Your task to perform on an android device: Open Google Chrome Image 0: 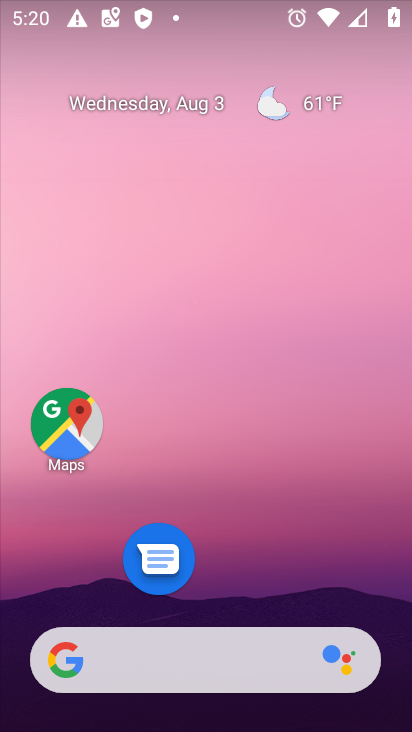
Step 0: drag from (214, 626) to (199, 224)
Your task to perform on an android device: Open Google Chrome Image 1: 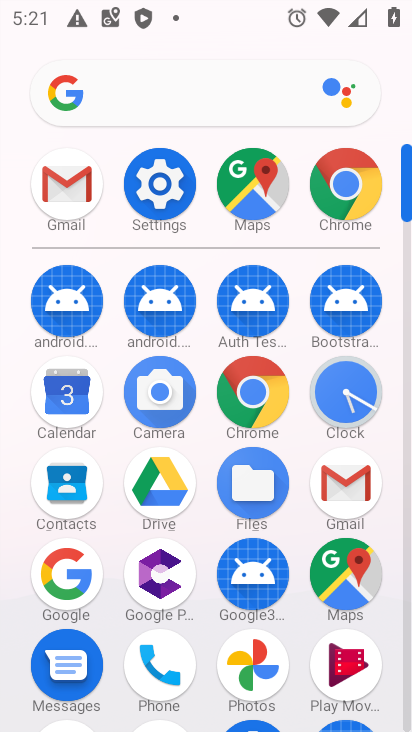
Step 1: click (339, 192)
Your task to perform on an android device: Open Google Chrome Image 2: 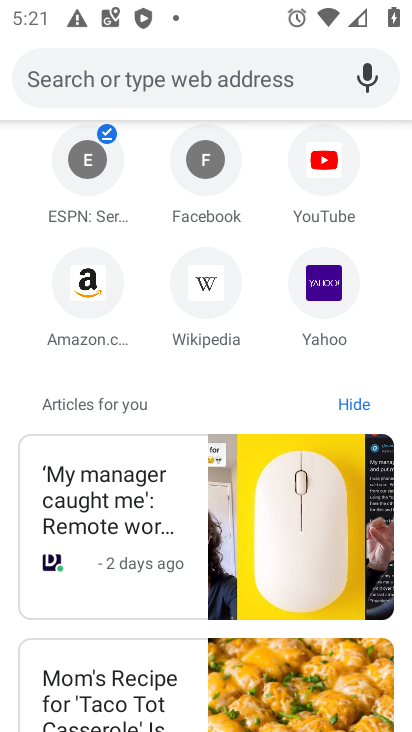
Step 2: drag from (202, 51) to (294, 383)
Your task to perform on an android device: Open Google Chrome Image 3: 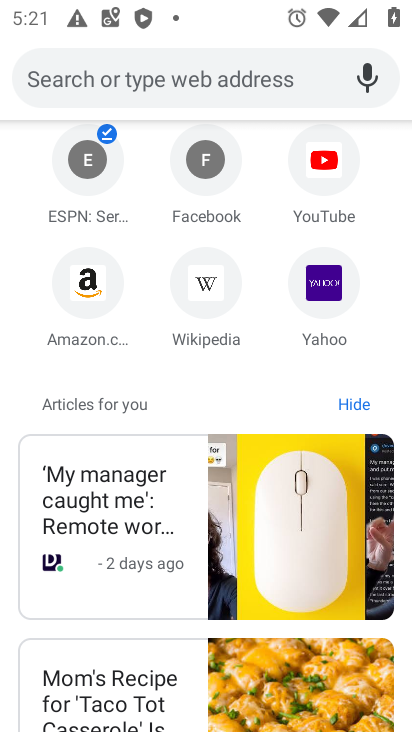
Step 3: drag from (195, 59) to (193, 531)
Your task to perform on an android device: Open Google Chrome Image 4: 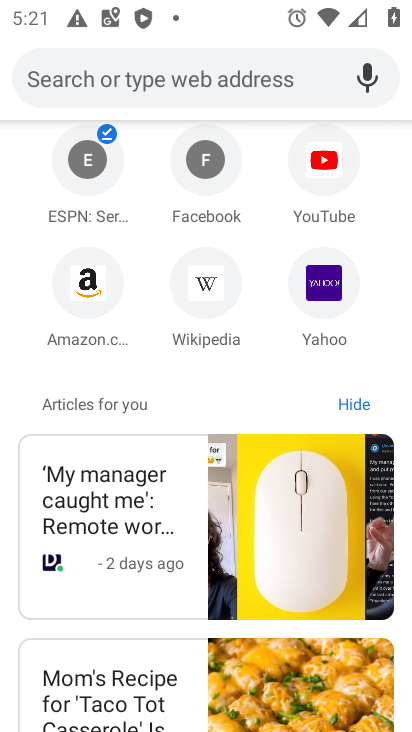
Step 4: drag from (137, 149) to (166, 634)
Your task to perform on an android device: Open Google Chrome Image 5: 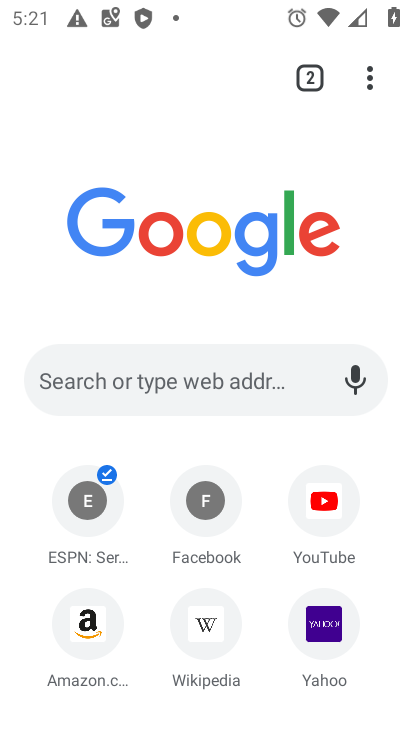
Step 5: click (363, 78)
Your task to perform on an android device: Open Google Chrome Image 6: 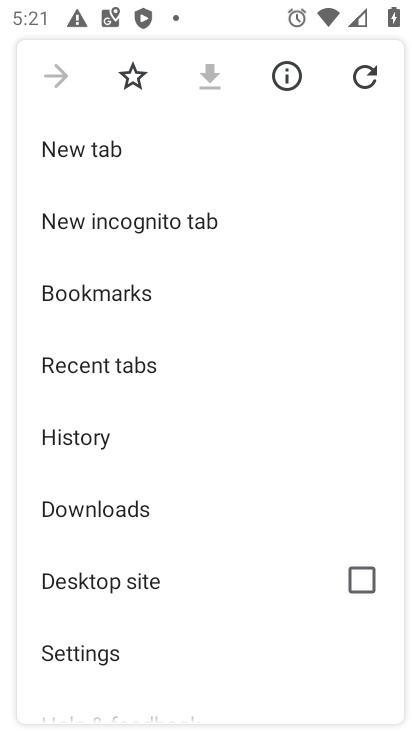
Step 6: click (7, 40)
Your task to perform on an android device: Open Google Chrome Image 7: 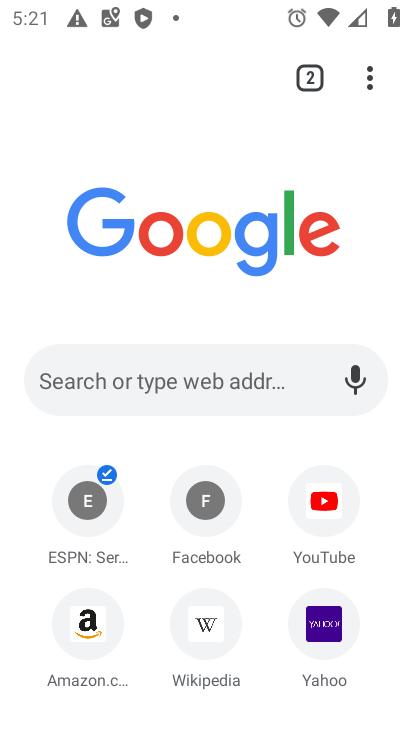
Step 7: task complete